Your task to perform on an android device: Add logitech g933 to the cart on amazon.com Image 0: 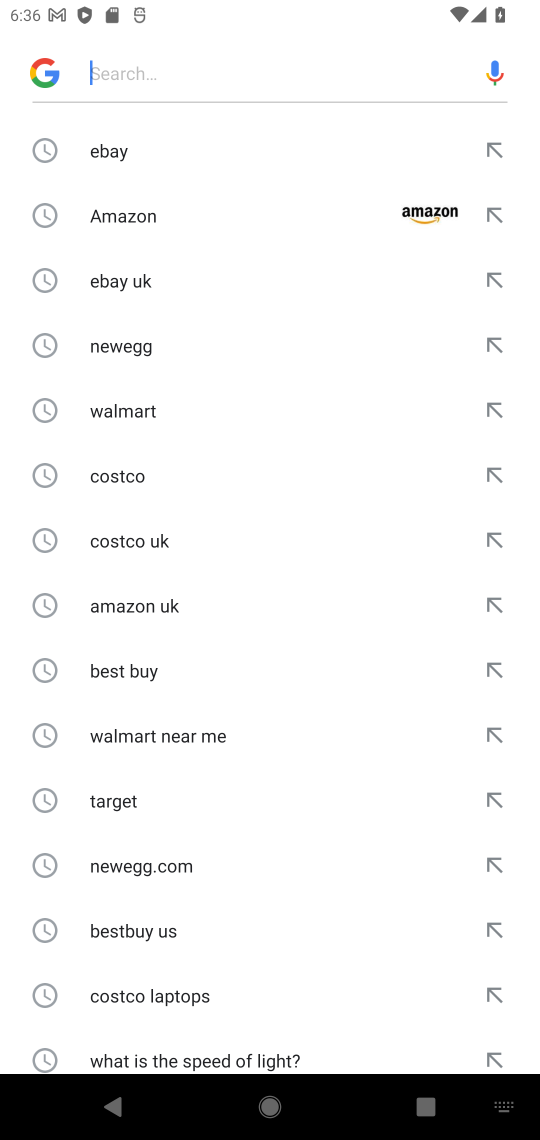
Step 0: click (120, 73)
Your task to perform on an android device: Add logitech g933 to the cart on amazon.com Image 1: 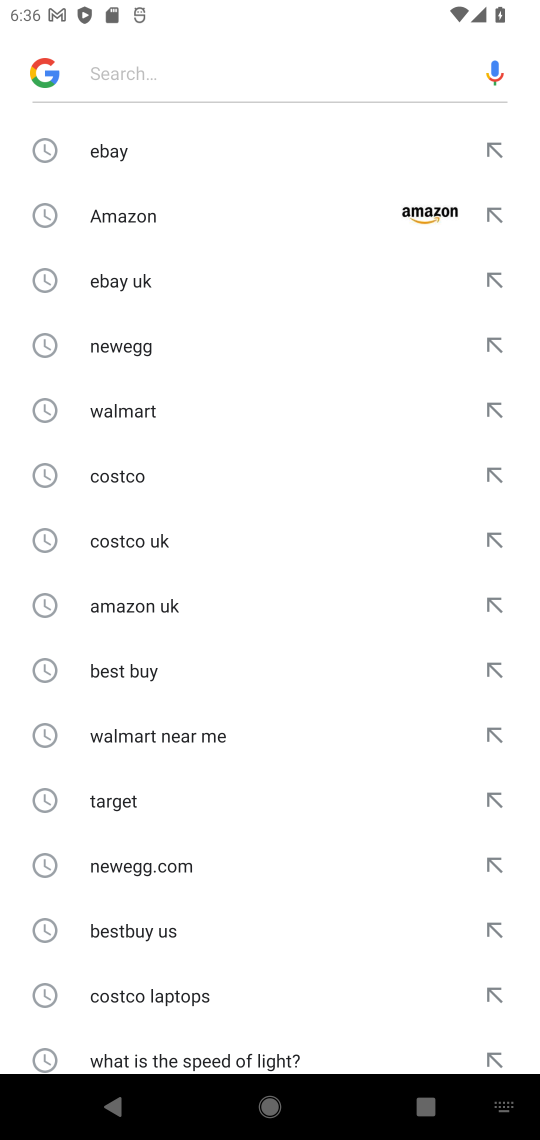
Step 1: type "amazon.com"
Your task to perform on an android device: Add logitech g933 to the cart on amazon.com Image 2: 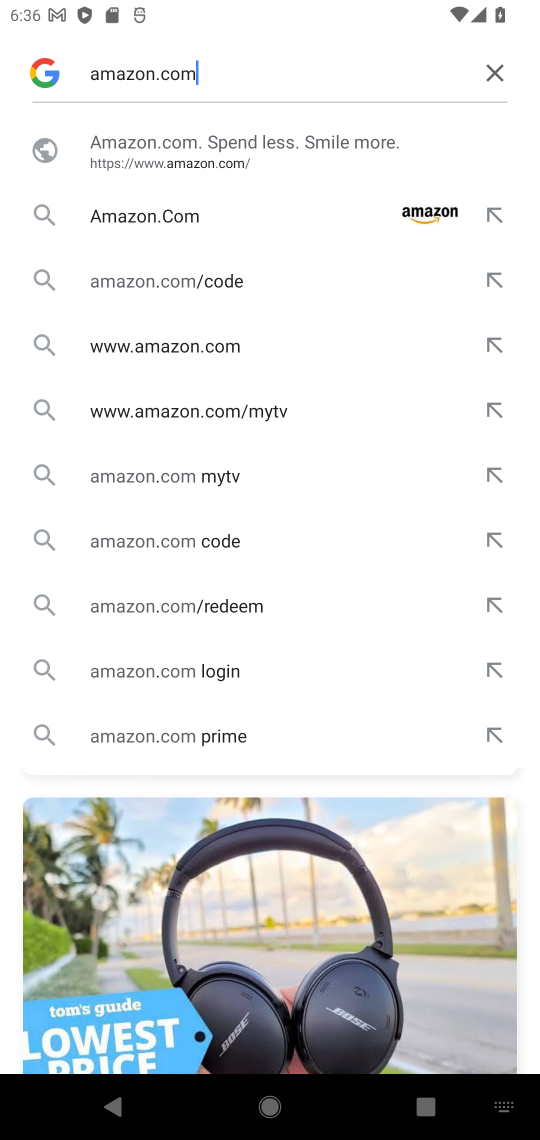
Step 2: click (135, 170)
Your task to perform on an android device: Add logitech g933 to the cart on amazon.com Image 3: 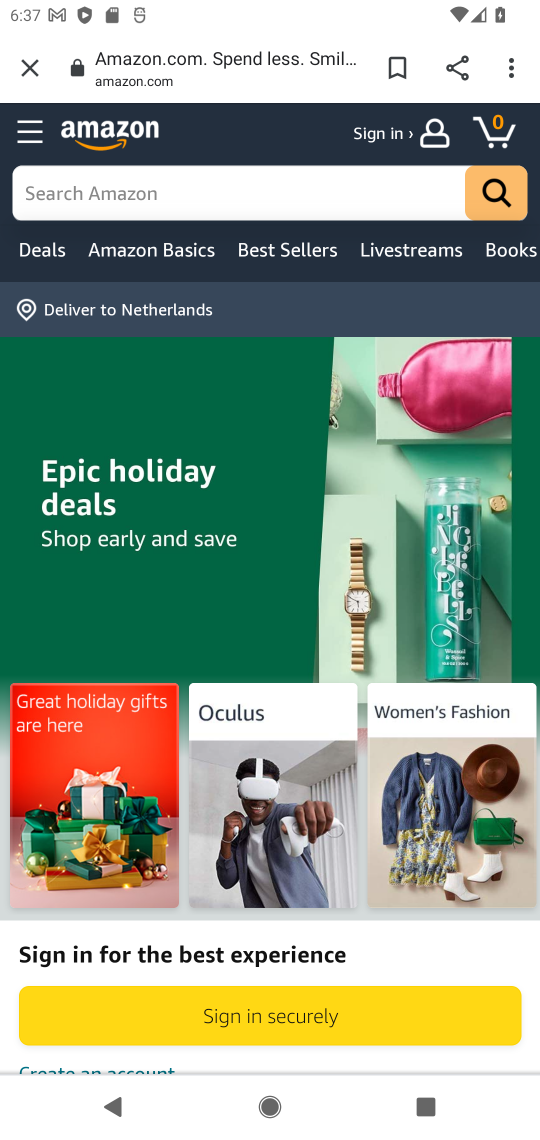
Step 3: click (90, 187)
Your task to perform on an android device: Add logitech g933 to the cart on amazon.com Image 4: 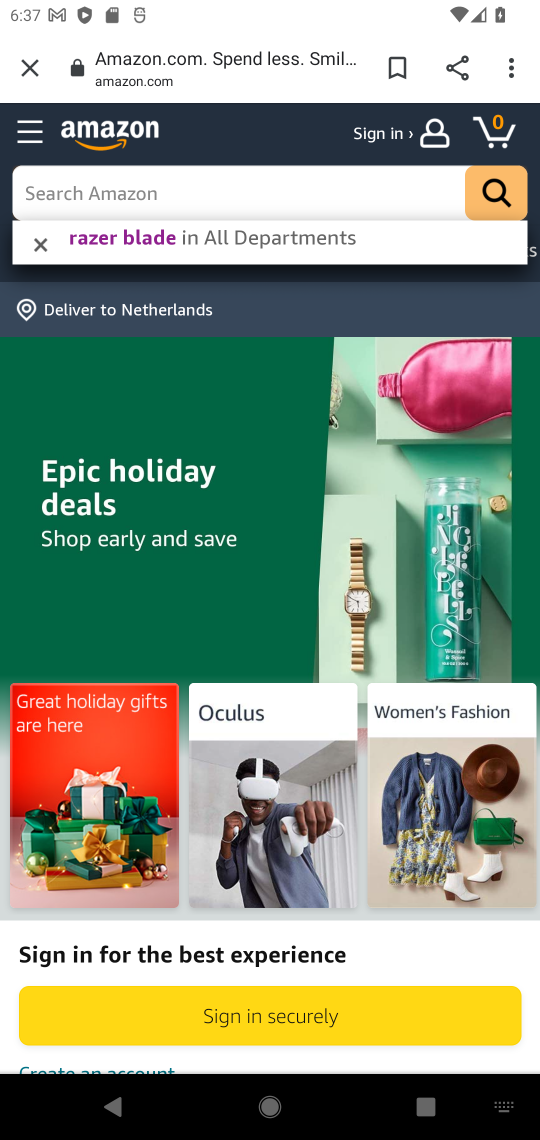
Step 4: type "logitech g933"
Your task to perform on an android device: Add logitech g933 to the cart on amazon.com Image 5: 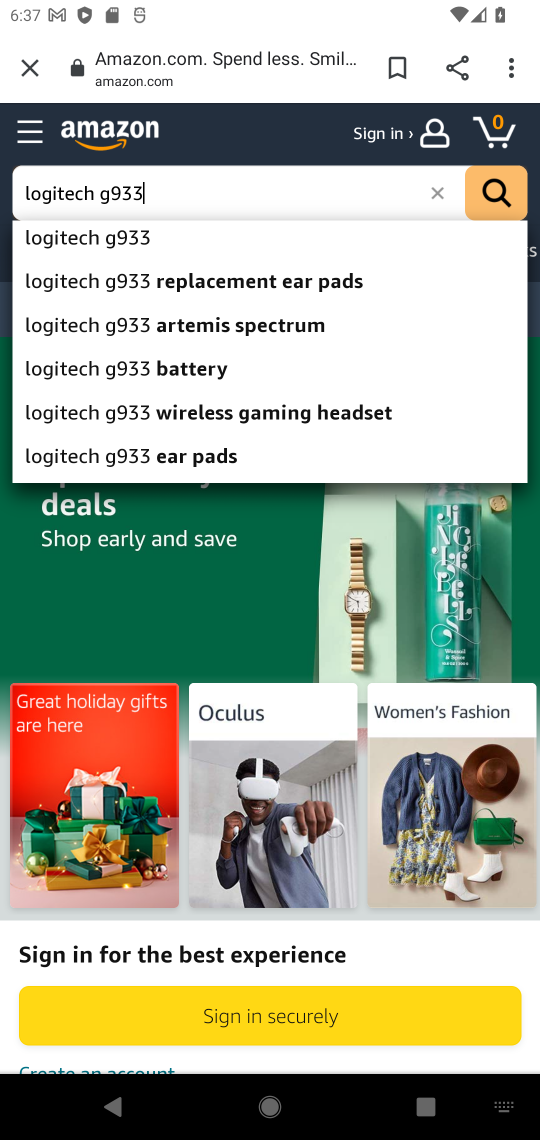
Step 5: click (103, 241)
Your task to perform on an android device: Add logitech g933 to the cart on amazon.com Image 6: 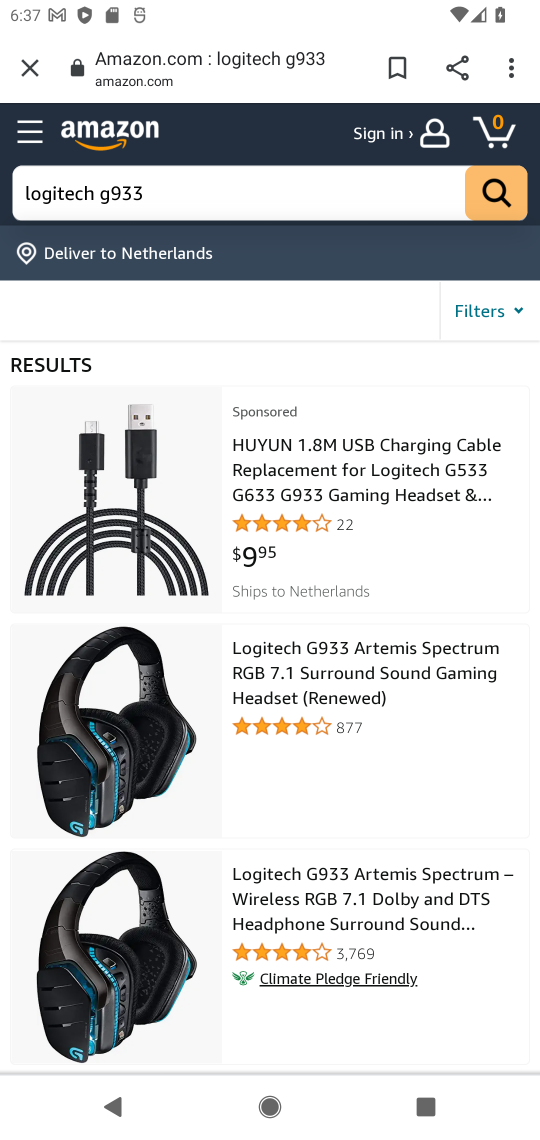
Step 6: click (249, 481)
Your task to perform on an android device: Add logitech g933 to the cart on amazon.com Image 7: 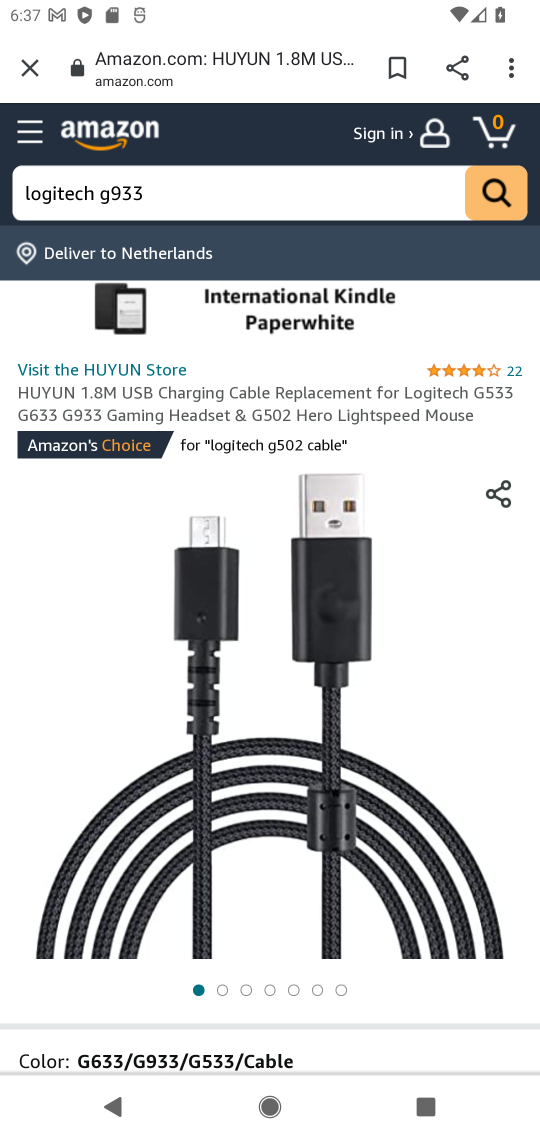
Step 7: drag from (228, 852) to (187, 279)
Your task to perform on an android device: Add logitech g933 to the cart on amazon.com Image 8: 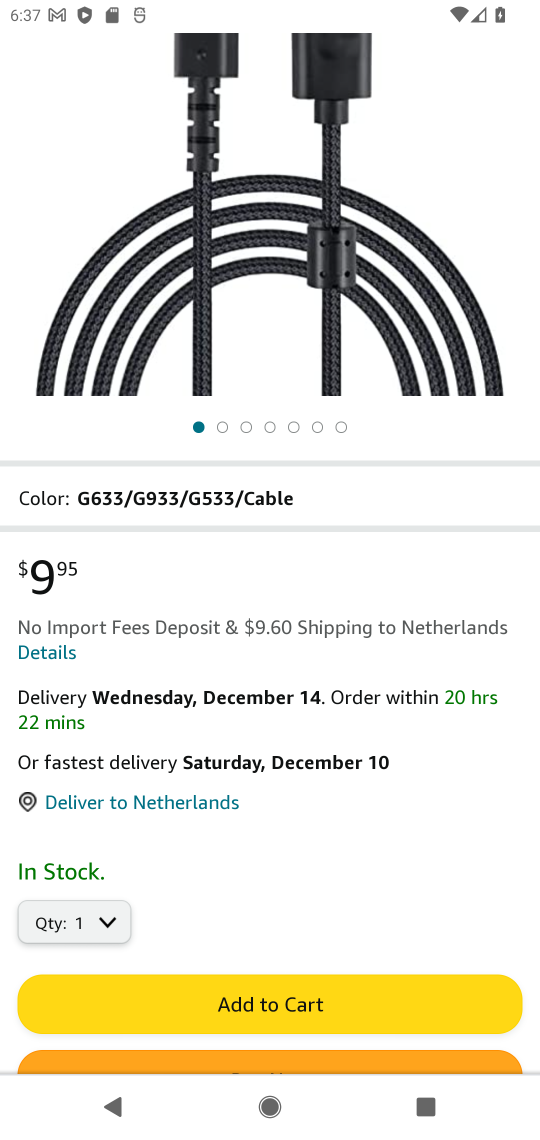
Step 8: drag from (241, 714) to (218, 334)
Your task to perform on an android device: Add logitech g933 to the cart on amazon.com Image 9: 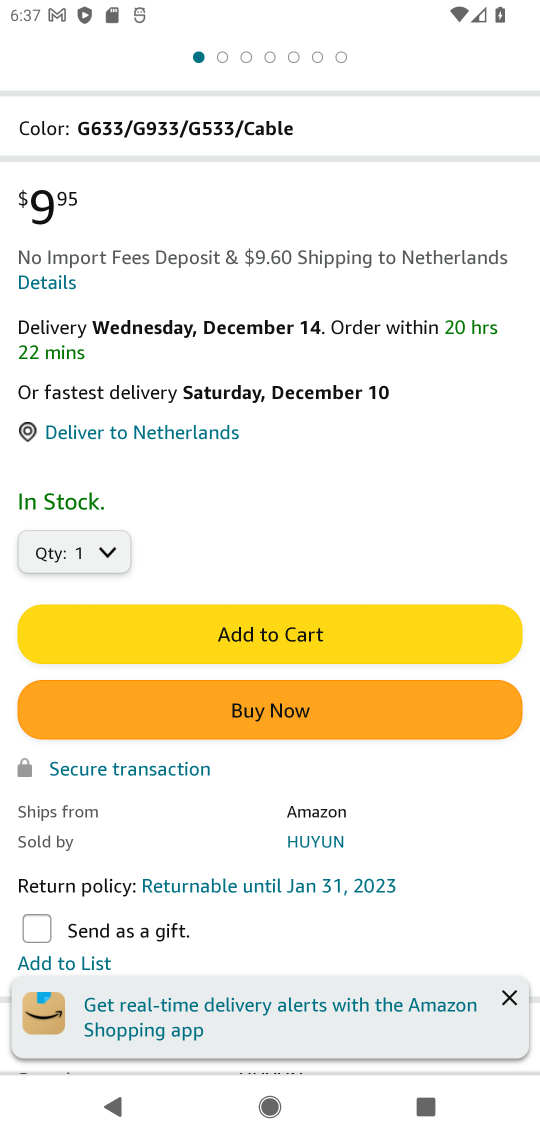
Step 9: click (258, 641)
Your task to perform on an android device: Add logitech g933 to the cart on amazon.com Image 10: 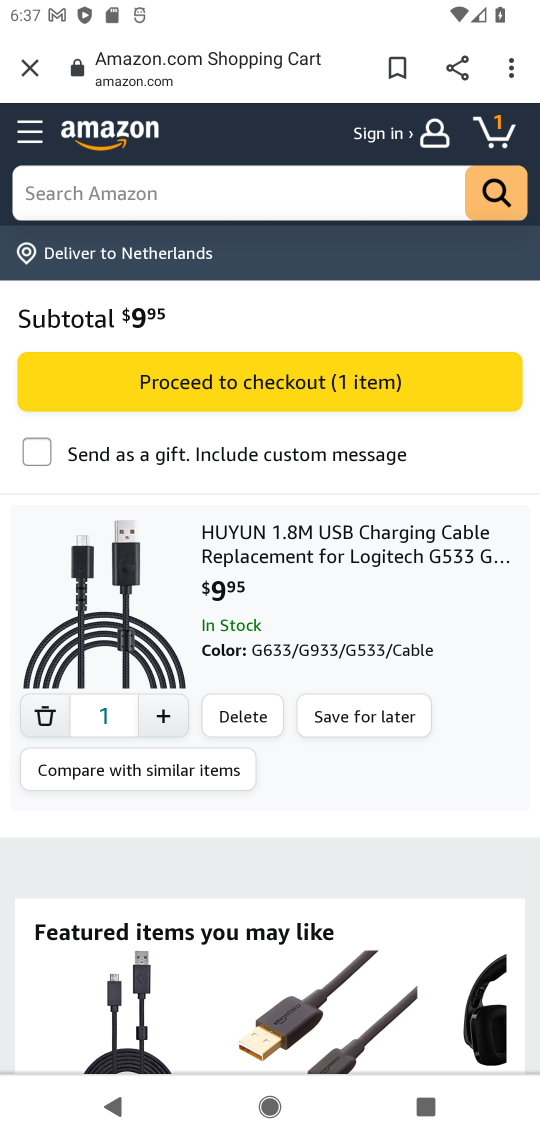
Step 10: task complete